Your task to perform on an android device: Find coffee shops on Maps Image 0: 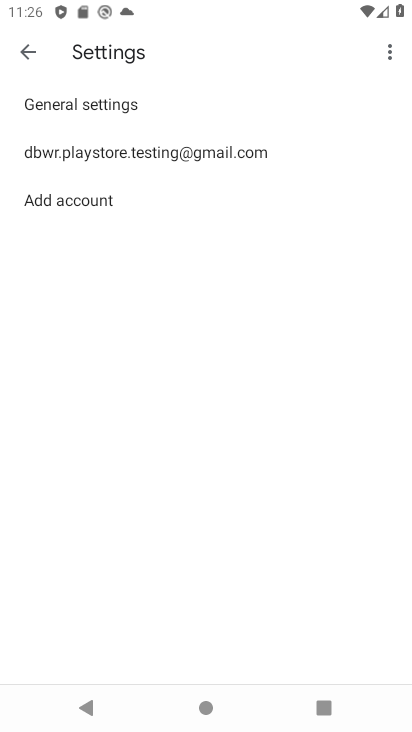
Step 0: press home button
Your task to perform on an android device: Find coffee shops on Maps Image 1: 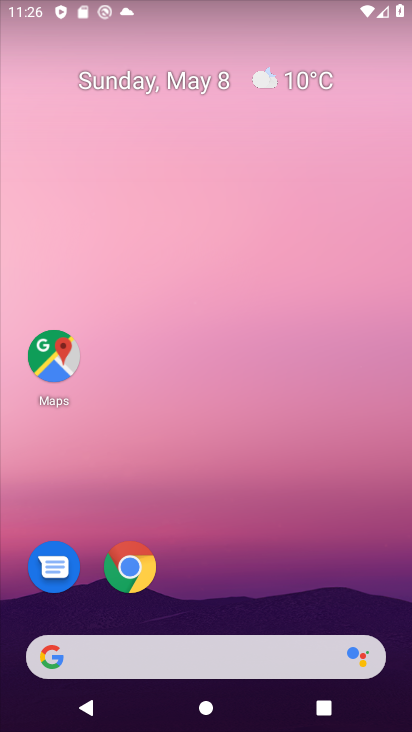
Step 1: click (71, 379)
Your task to perform on an android device: Find coffee shops on Maps Image 2: 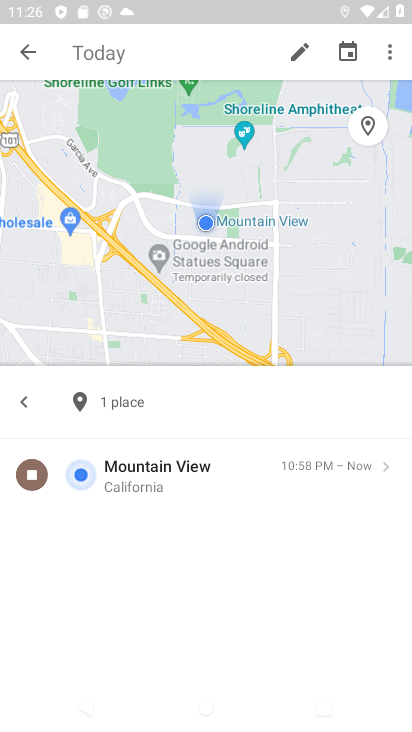
Step 2: click (34, 57)
Your task to perform on an android device: Find coffee shops on Maps Image 3: 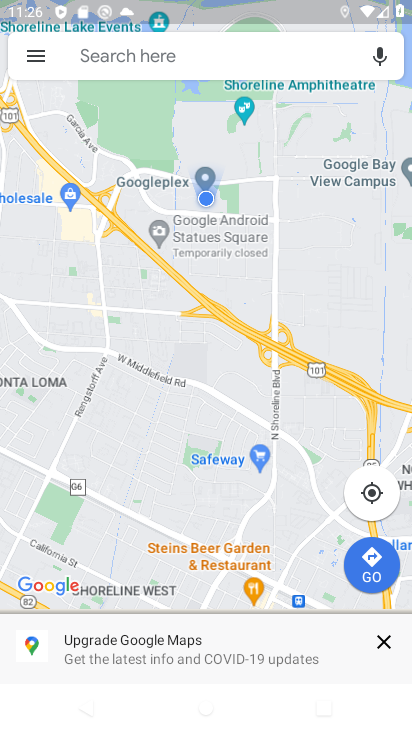
Step 3: click (147, 47)
Your task to perform on an android device: Find coffee shops on Maps Image 4: 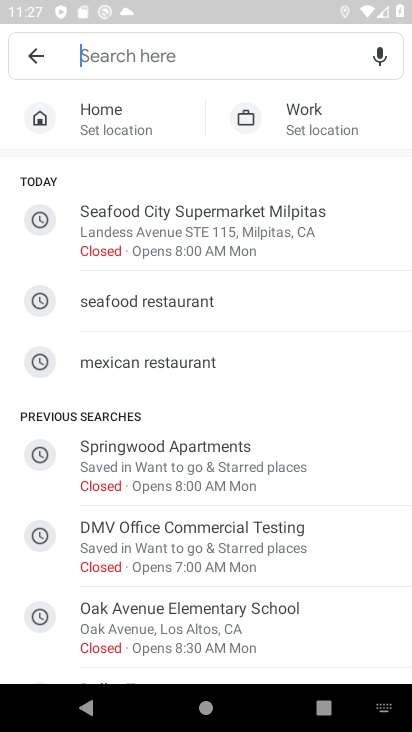
Step 4: type "coffee shops"
Your task to perform on an android device: Find coffee shops on Maps Image 5: 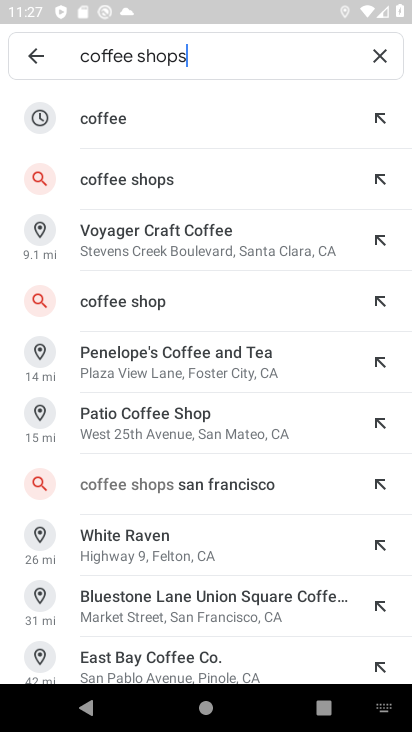
Step 5: click (230, 193)
Your task to perform on an android device: Find coffee shops on Maps Image 6: 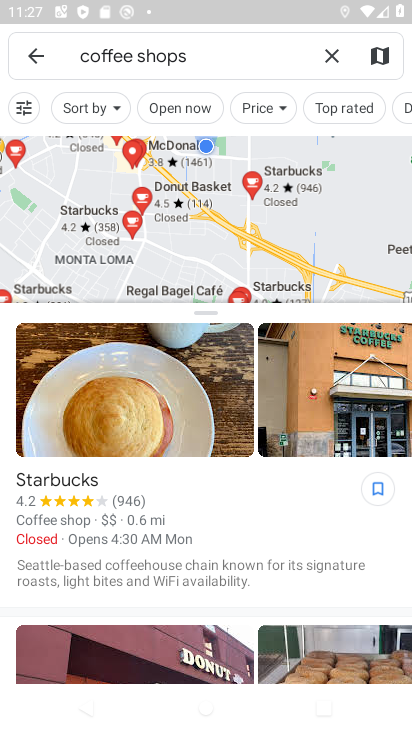
Step 6: task complete